Your task to perform on an android device: Open Chrome and go to the settings page Image 0: 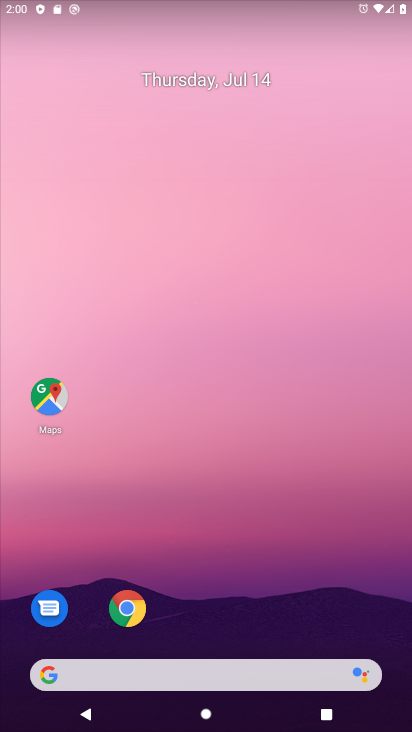
Step 0: click (132, 605)
Your task to perform on an android device: Open Chrome and go to the settings page Image 1: 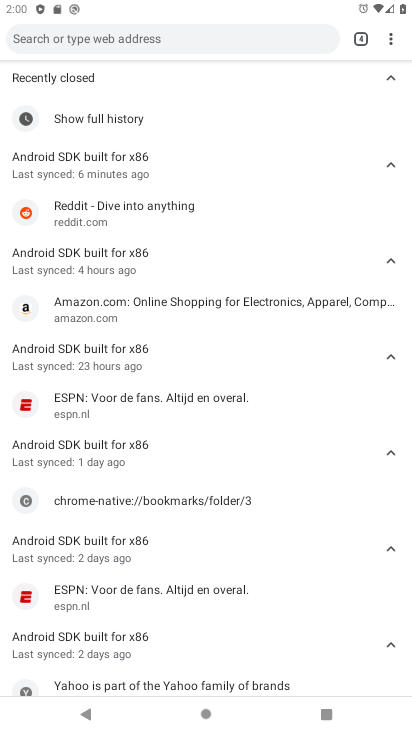
Step 1: click (393, 38)
Your task to perform on an android device: Open Chrome and go to the settings page Image 2: 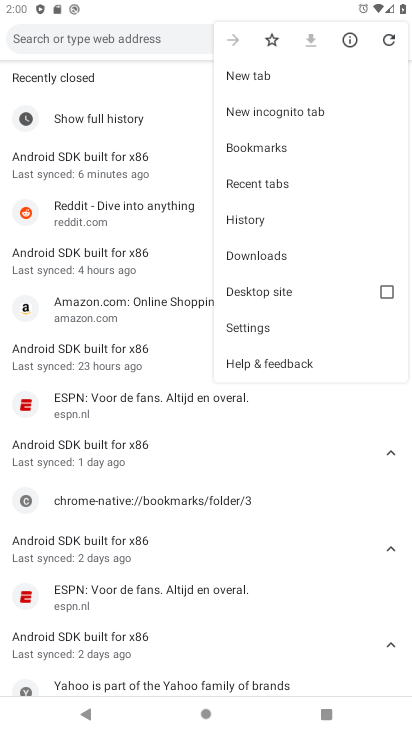
Step 2: click (250, 322)
Your task to perform on an android device: Open Chrome and go to the settings page Image 3: 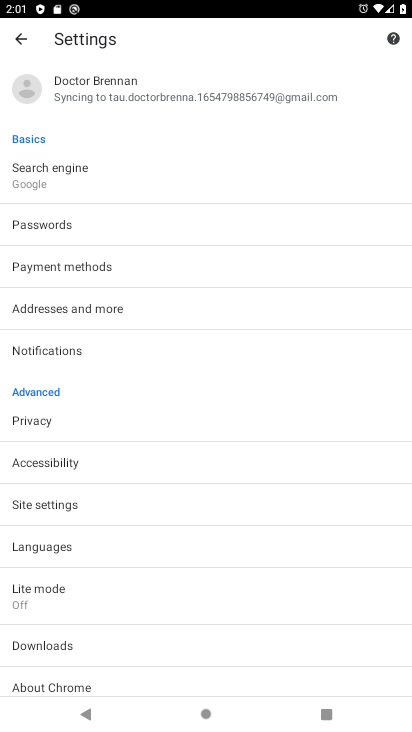
Step 3: task complete